Your task to perform on an android device: Clear the cart on bestbuy. Image 0: 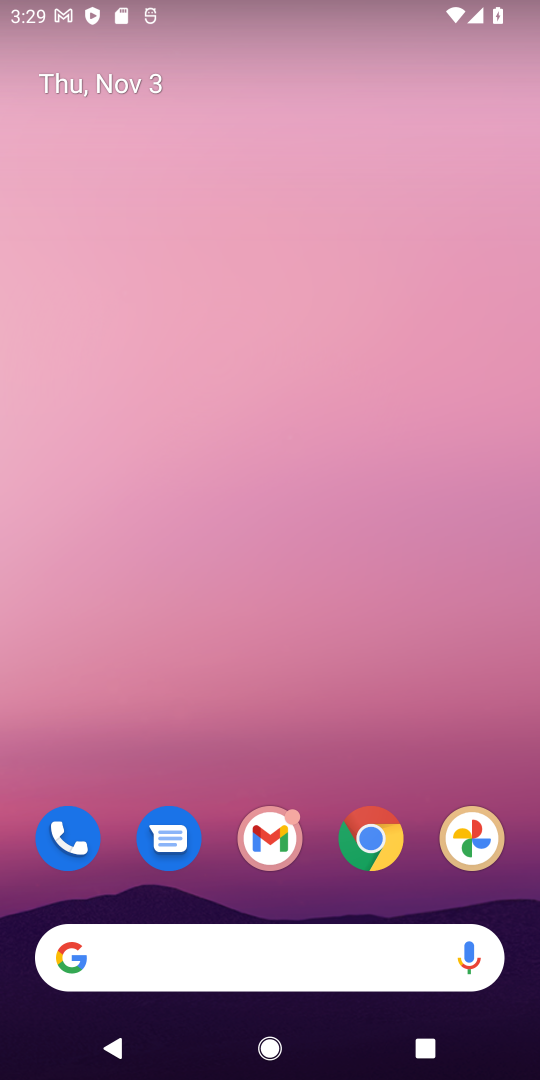
Step 0: drag from (319, 916) to (250, 268)
Your task to perform on an android device: Clear the cart on bestbuy. Image 1: 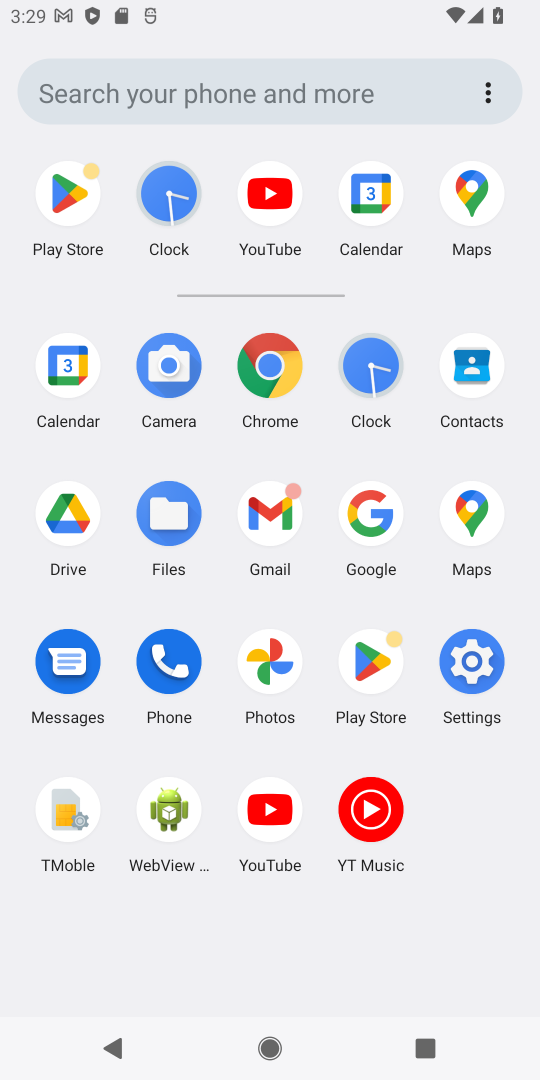
Step 1: click (273, 365)
Your task to perform on an android device: Clear the cart on bestbuy. Image 2: 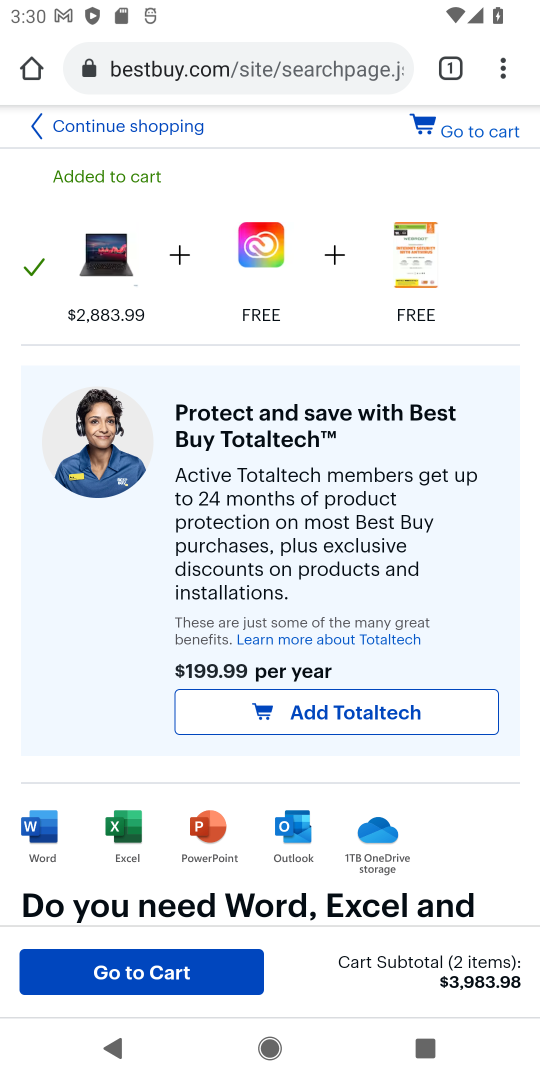
Step 2: drag from (340, 209) to (274, 661)
Your task to perform on an android device: Clear the cart on bestbuy. Image 3: 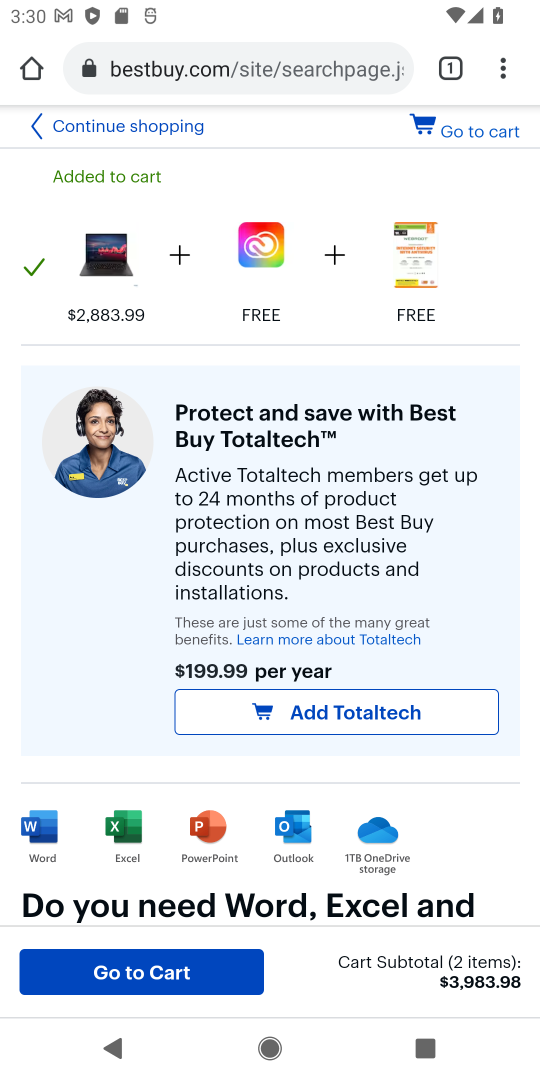
Step 3: drag from (280, 329) to (319, 858)
Your task to perform on an android device: Clear the cart on bestbuy. Image 4: 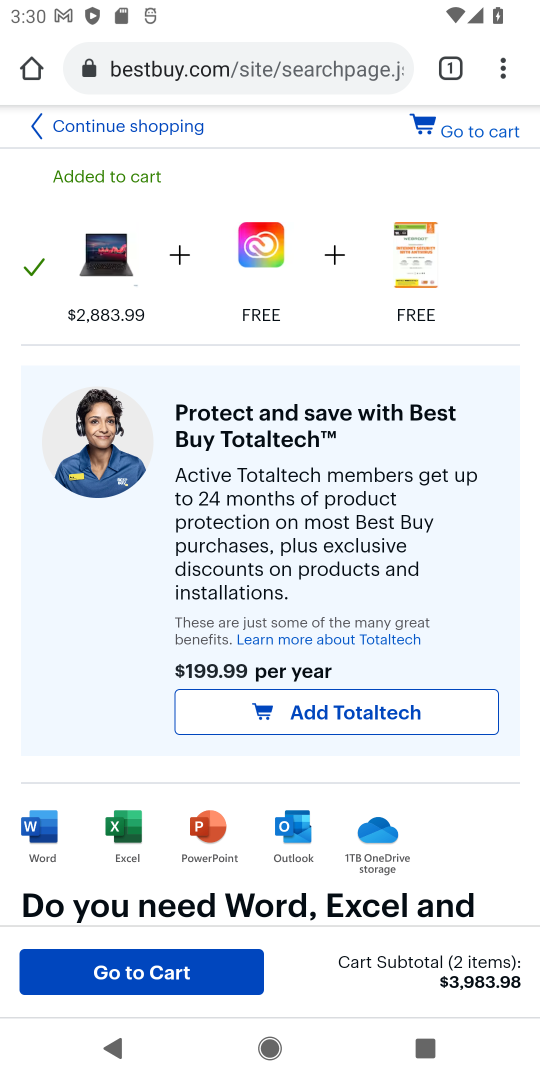
Step 4: click (200, 973)
Your task to perform on an android device: Clear the cart on bestbuy. Image 5: 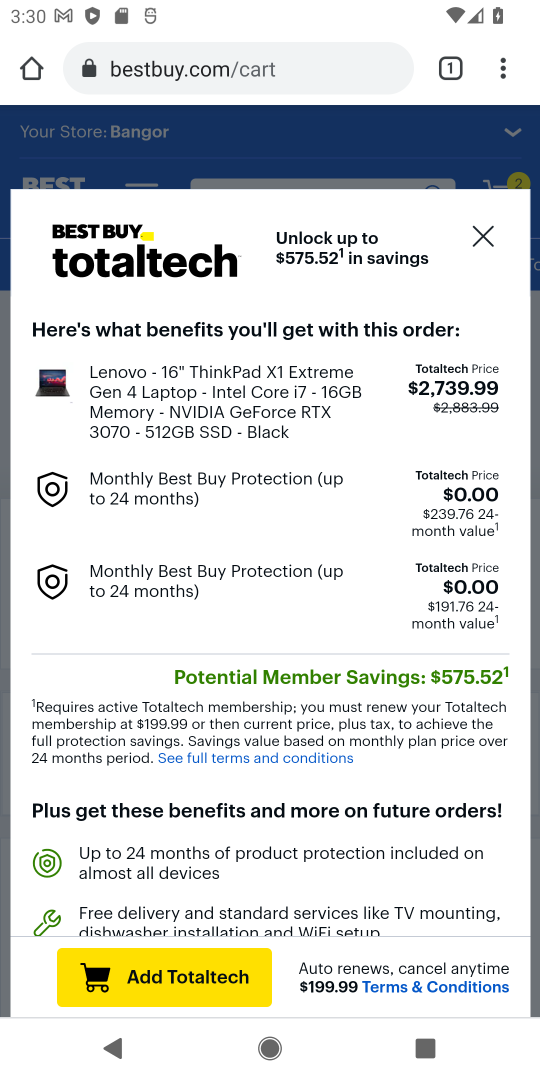
Step 5: click (491, 233)
Your task to perform on an android device: Clear the cart on bestbuy. Image 6: 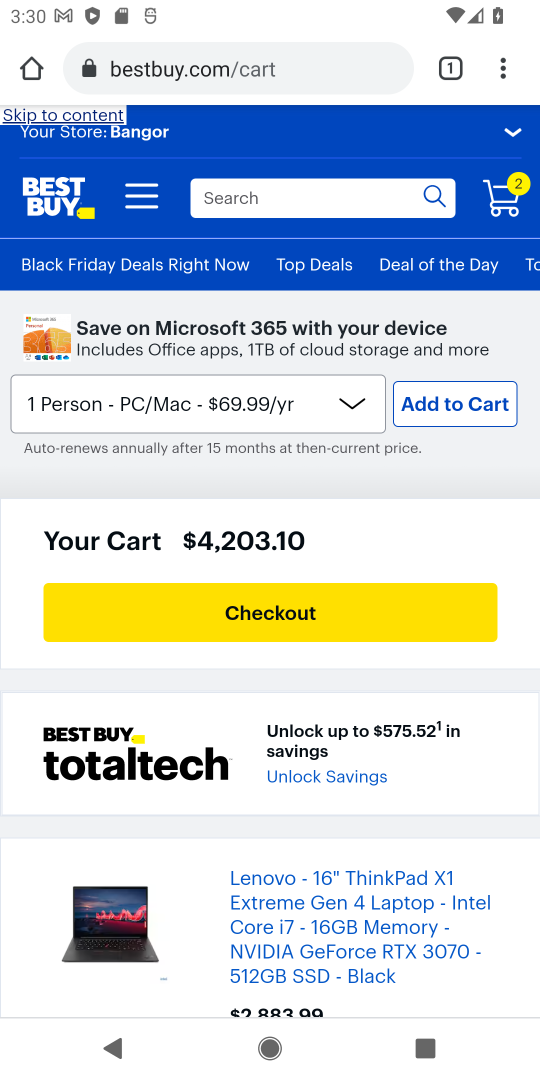
Step 6: drag from (339, 912) to (330, 481)
Your task to perform on an android device: Clear the cart on bestbuy. Image 7: 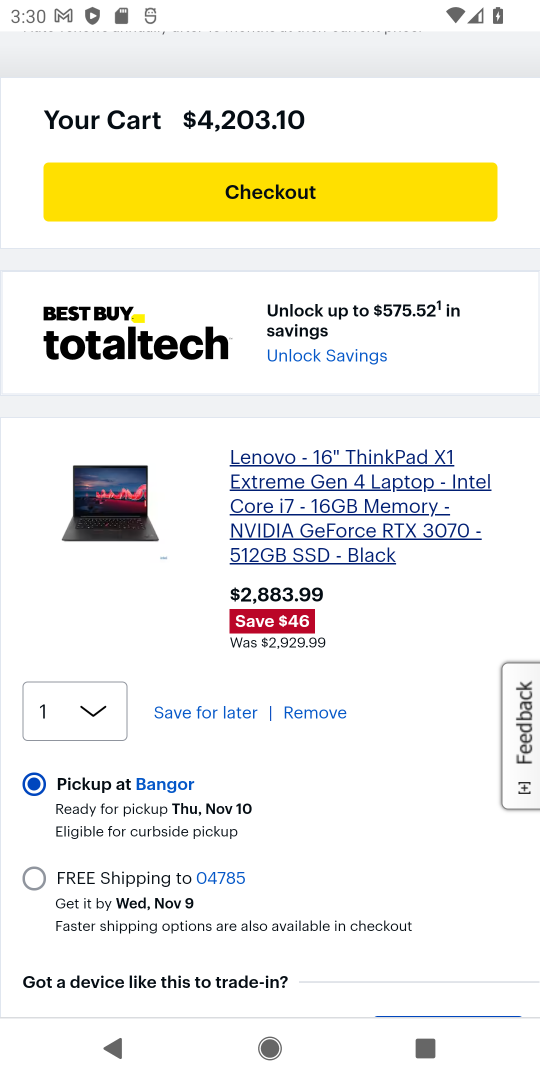
Step 7: click (320, 719)
Your task to perform on an android device: Clear the cart on bestbuy. Image 8: 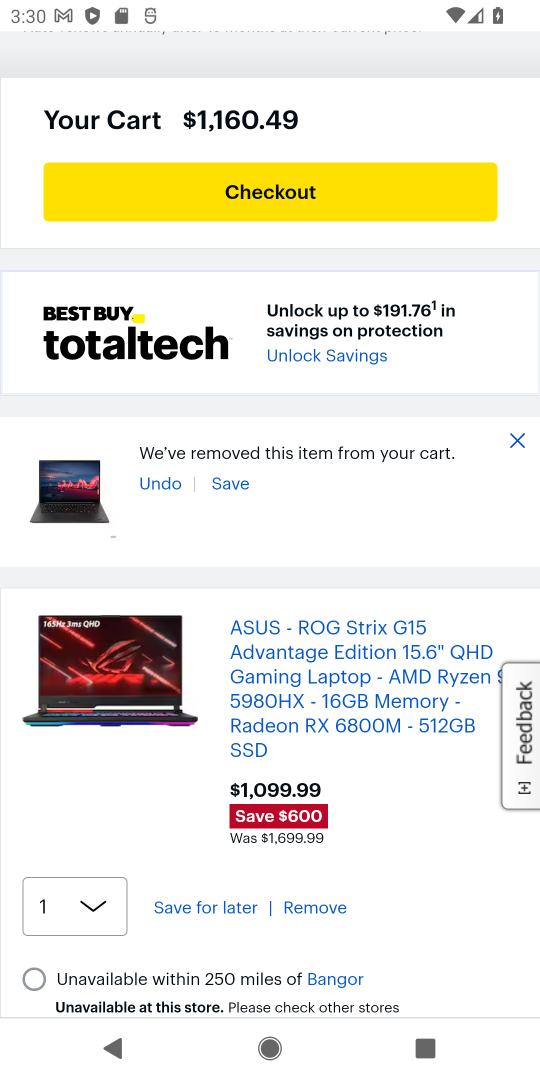
Step 8: click (326, 912)
Your task to perform on an android device: Clear the cart on bestbuy. Image 9: 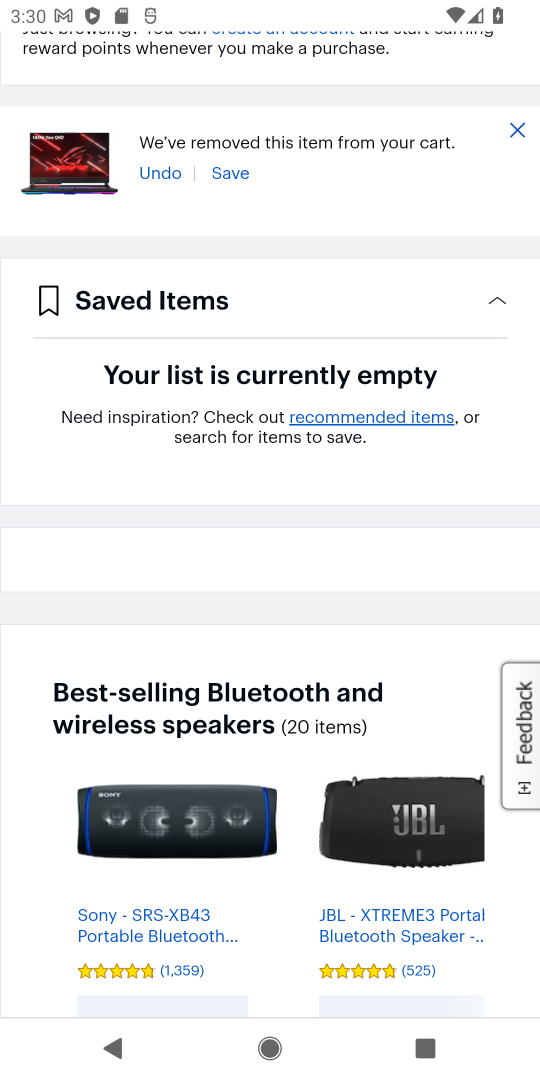
Step 9: task complete